Your task to perform on an android device: Turn off the flashlight Image 0: 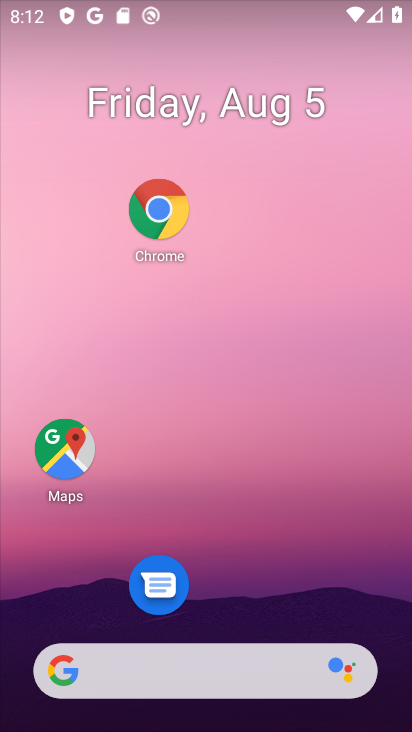
Step 0: drag from (235, 612) to (238, 5)
Your task to perform on an android device: Turn off the flashlight Image 1: 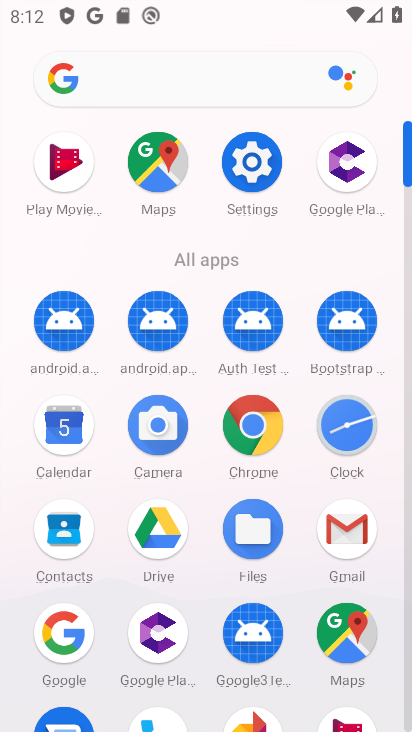
Step 1: click (243, 159)
Your task to perform on an android device: Turn off the flashlight Image 2: 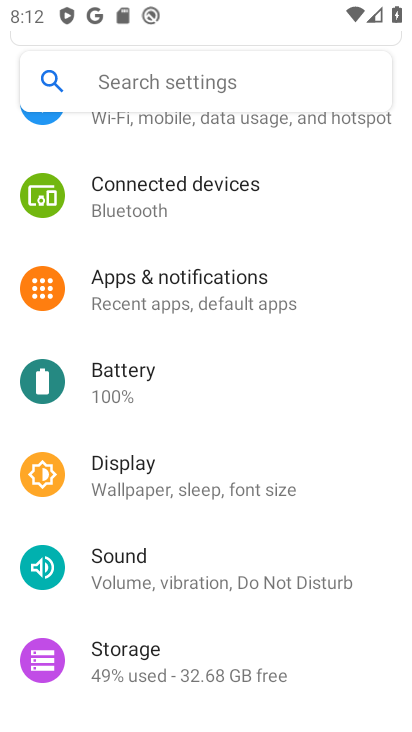
Step 2: click (198, 69)
Your task to perform on an android device: Turn off the flashlight Image 3: 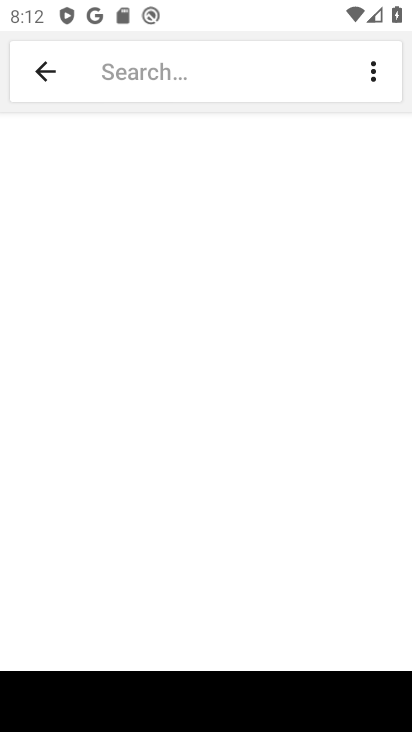
Step 3: type "flashlight"
Your task to perform on an android device: Turn off the flashlight Image 4: 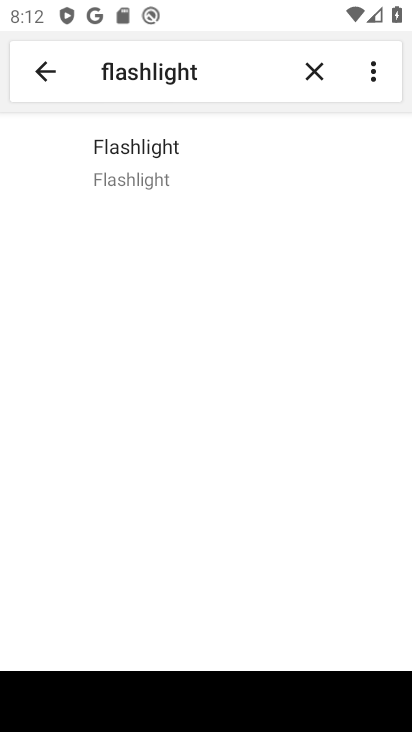
Step 4: task complete